Your task to perform on an android device: Open accessibility settings Image 0: 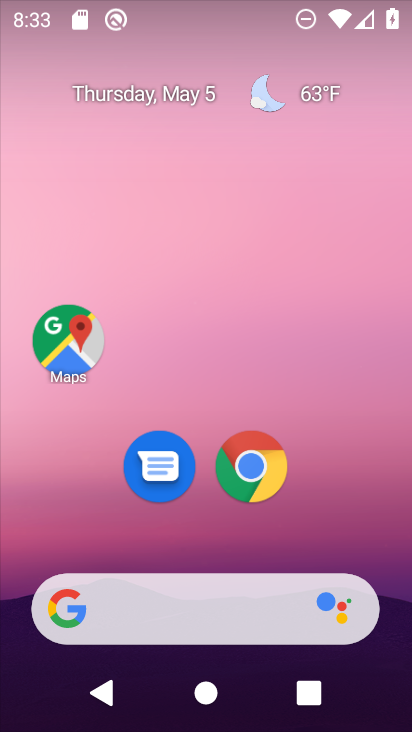
Step 0: drag from (221, 570) to (199, 265)
Your task to perform on an android device: Open accessibility settings Image 1: 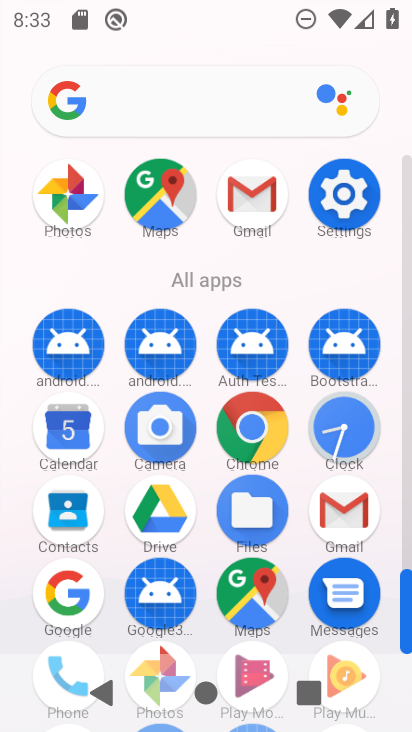
Step 1: click (333, 202)
Your task to perform on an android device: Open accessibility settings Image 2: 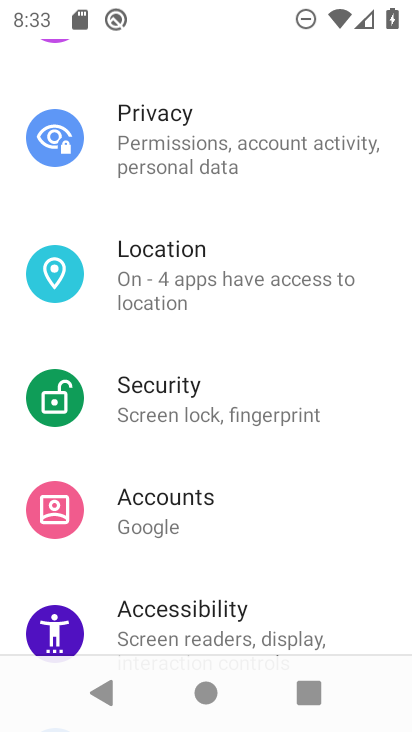
Step 2: click (233, 620)
Your task to perform on an android device: Open accessibility settings Image 3: 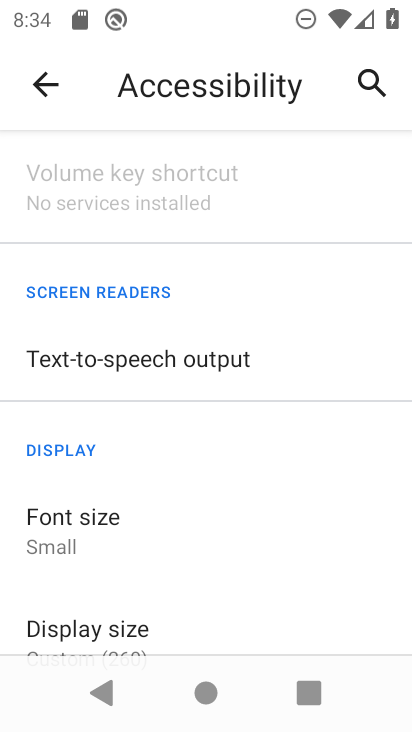
Step 3: task complete